Your task to perform on an android device: What's the weather? Image 0: 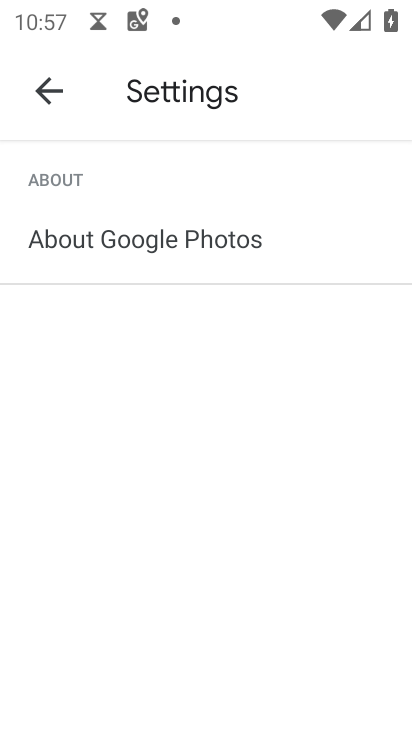
Step 0: click (26, 93)
Your task to perform on an android device: What's the weather? Image 1: 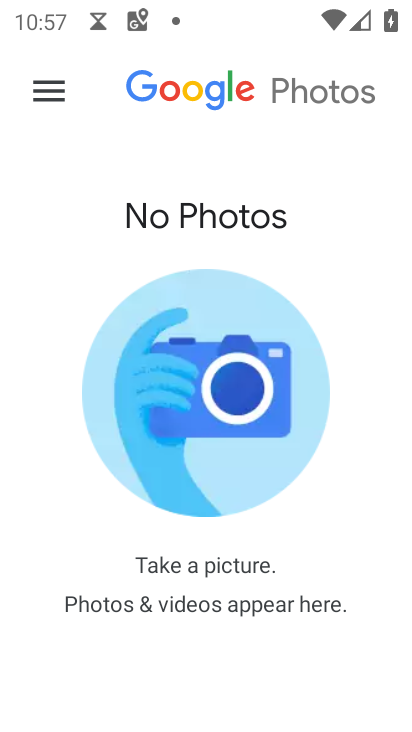
Step 1: press home button
Your task to perform on an android device: What's the weather? Image 2: 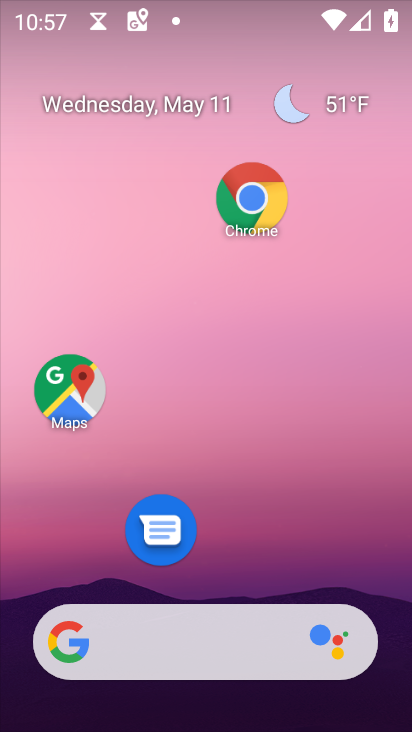
Step 2: click (160, 667)
Your task to perform on an android device: What's the weather? Image 3: 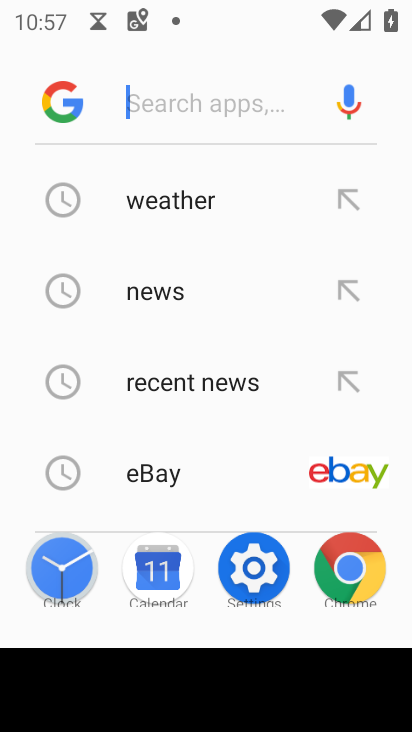
Step 3: click (129, 203)
Your task to perform on an android device: What's the weather? Image 4: 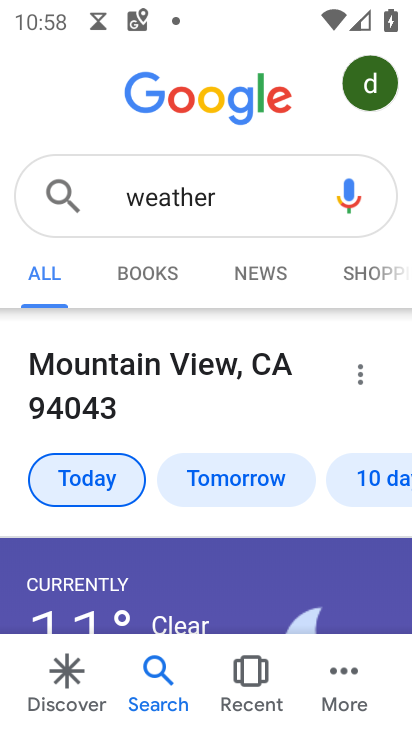
Step 4: task complete